Your task to perform on an android device: Open ESPN.com Image 0: 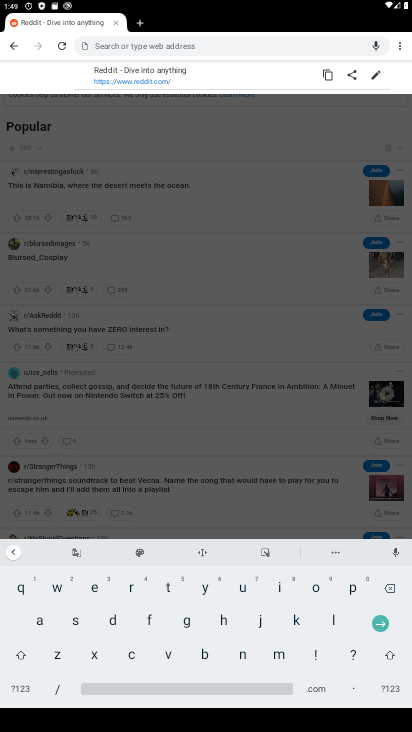
Step 0: press home button
Your task to perform on an android device: Open ESPN.com Image 1: 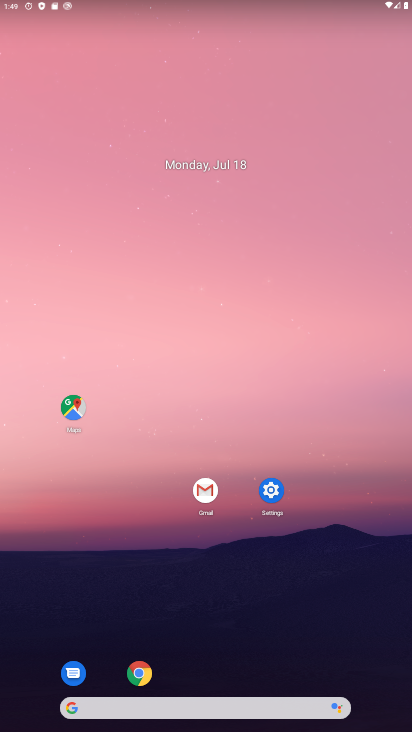
Step 1: click (151, 663)
Your task to perform on an android device: Open ESPN.com Image 2: 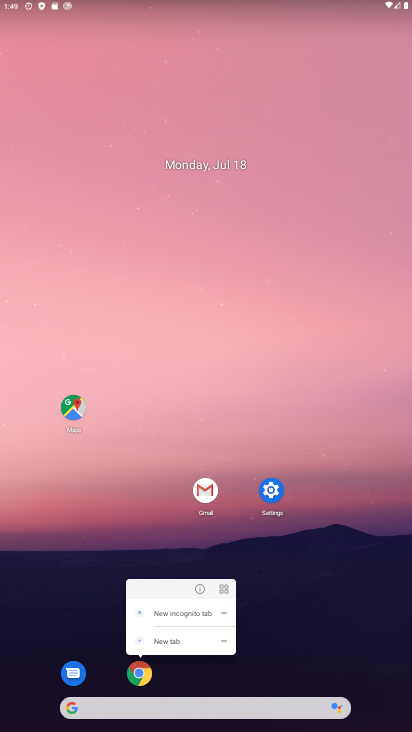
Step 2: click (142, 677)
Your task to perform on an android device: Open ESPN.com Image 3: 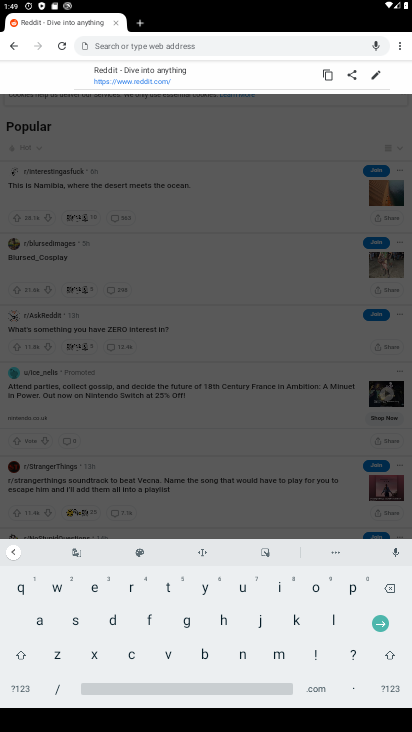
Step 3: click (396, 49)
Your task to perform on an android device: Open ESPN.com Image 4: 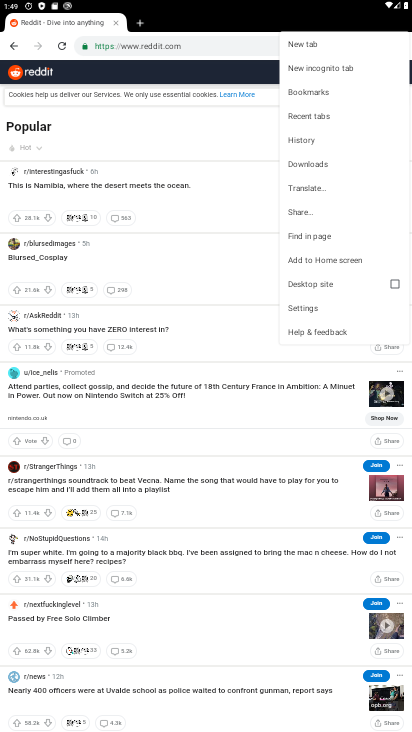
Step 4: click (316, 44)
Your task to perform on an android device: Open ESPN.com Image 5: 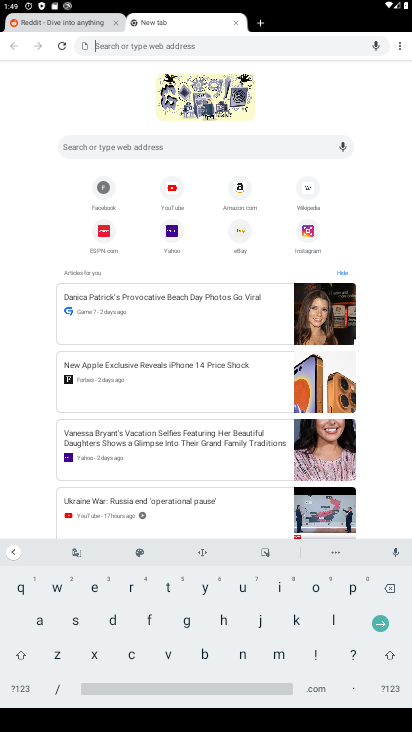
Step 5: click (101, 232)
Your task to perform on an android device: Open ESPN.com Image 6: 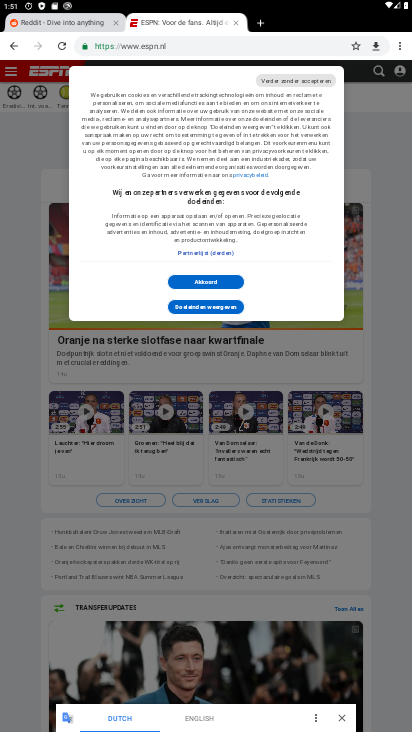
Step 6: task complete